Your task to perform on an android device: turn off airplane mode Image 0: 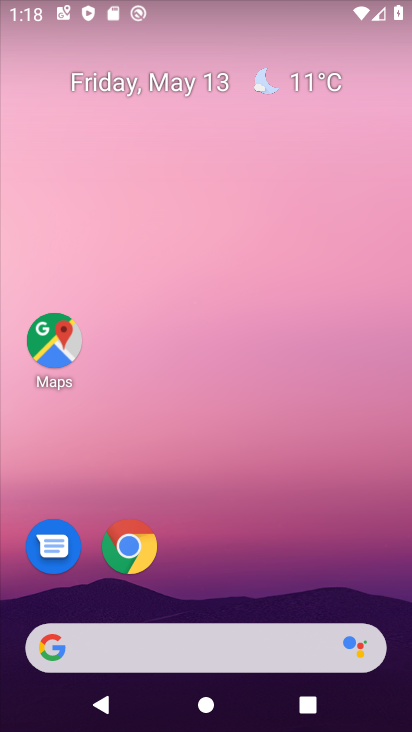
Step 0: drag from (253, 599) to (251, 107)
Your task to perform on an android device: turn off airplane mode Image 1: 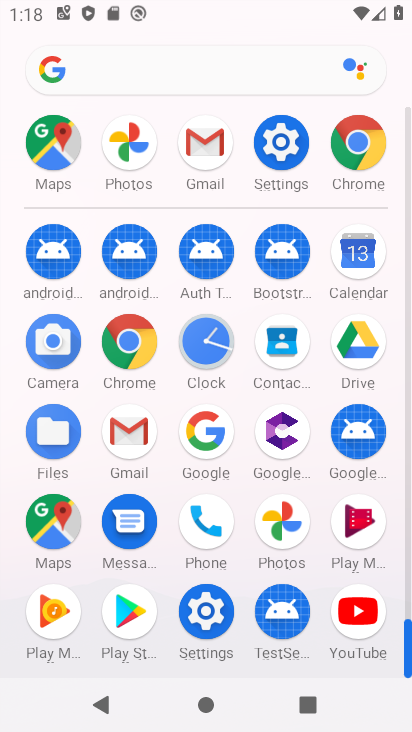
Step 1: click (269, 160)
Your task to perform on an android device: turn off airplane mode Image 2: 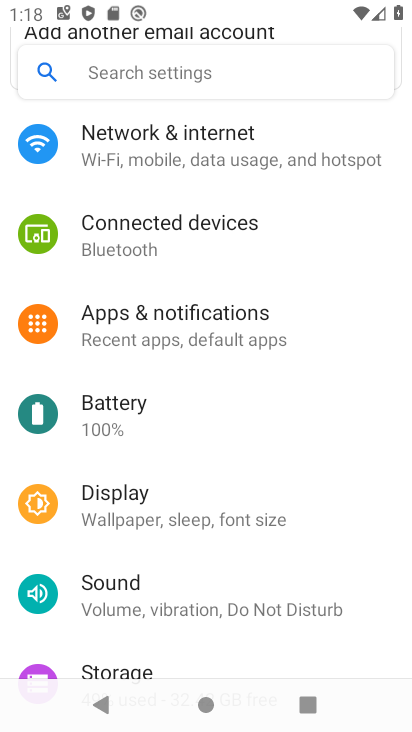
Step 2: drag from (252, 281) to (238, 485)
Your task to perform on an android device: turn off airplane mode Image 3: 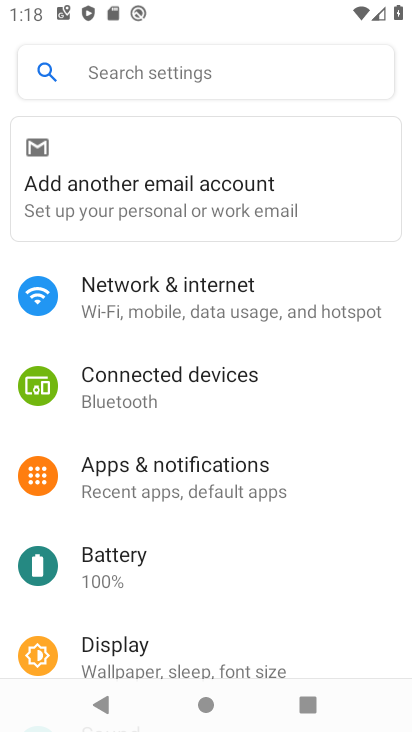
Step 3: drag from (198, 364) to (200, 508)
Your task to perform on an android device: turn off airplane mode Image 4: 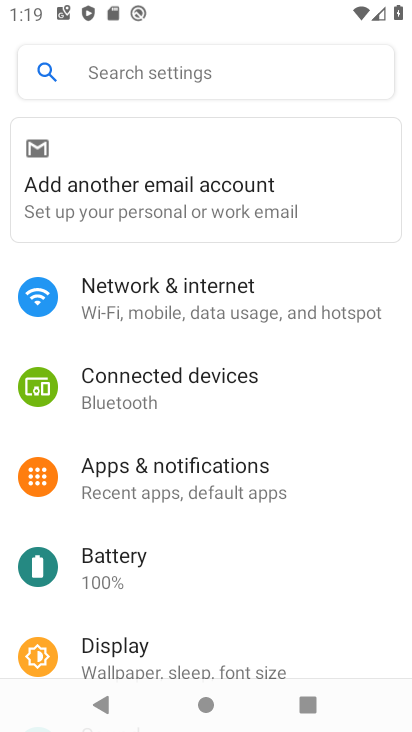
Step 4: click (217, 315)
Your task to perform on an android device: turn off airplane mode Image 5: 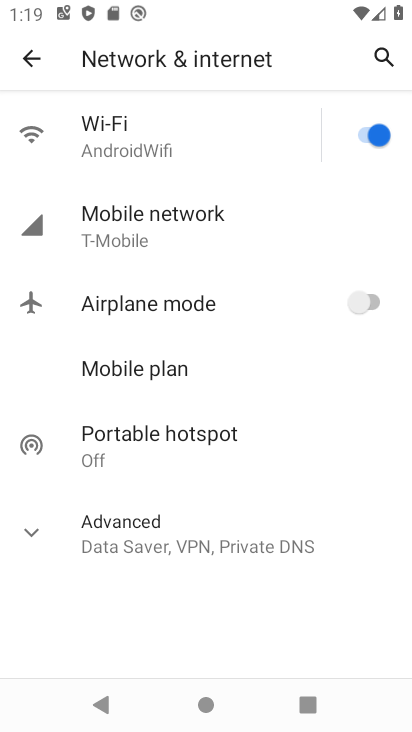
Step 5: task complete